Your task to perform on an android device: See recent photos Image 0: 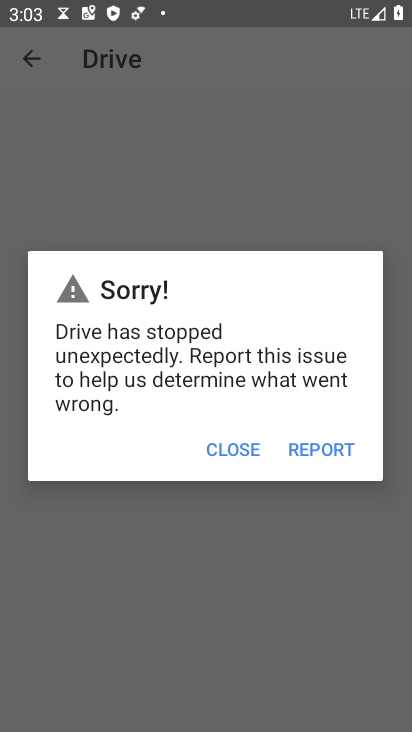
Step 0: press home button
Your task to perform on an android device: See recent photos Image 1: 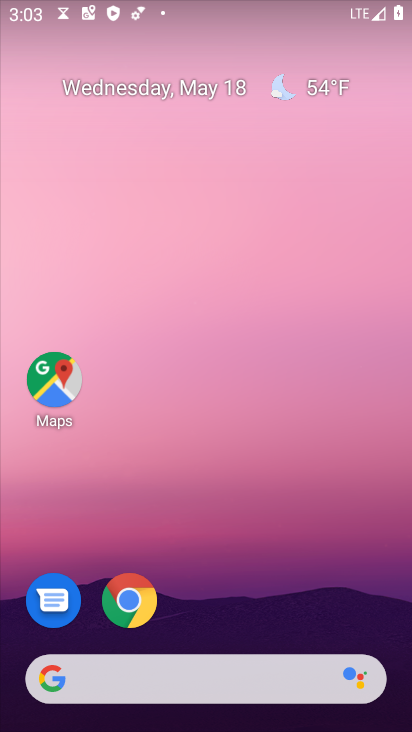
Step 1: drag from (171, 679) to (310, 45)
Your task to perform on an android device: See recent photos Image 2: 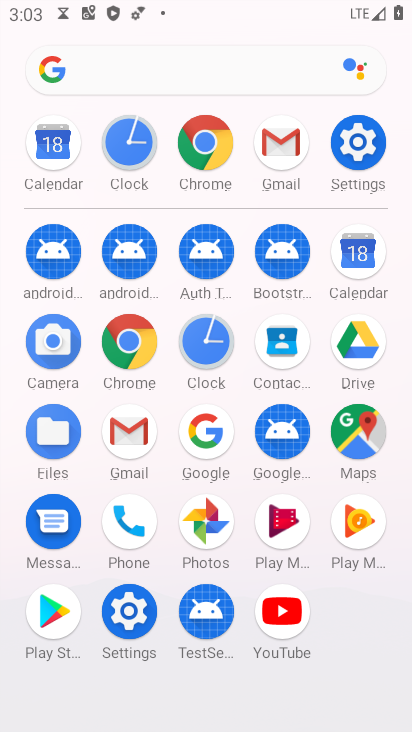
Step 2: click (210, 520)
Your task to perform on an android device: See recent photos Image 3: 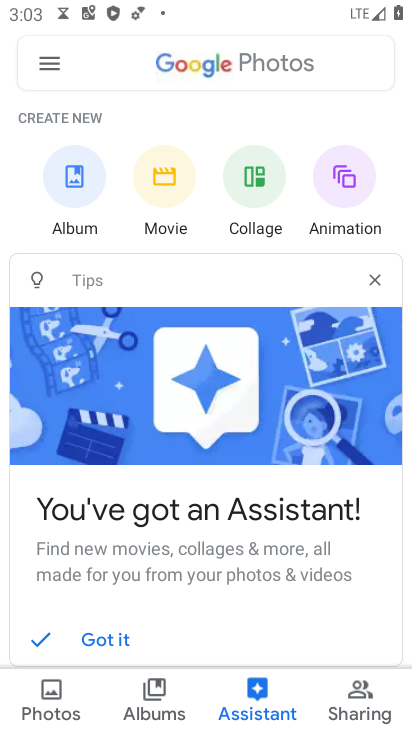
Step 3: click (149, 710)
Your task to perform on an android device: See recent photos Image 4: 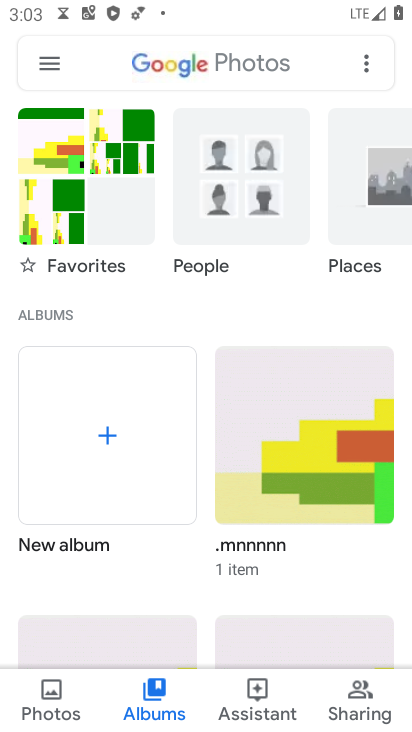
Step 4: task complete